Your task to perform on an android device: Go to calendar. Show me events next week Image 0: 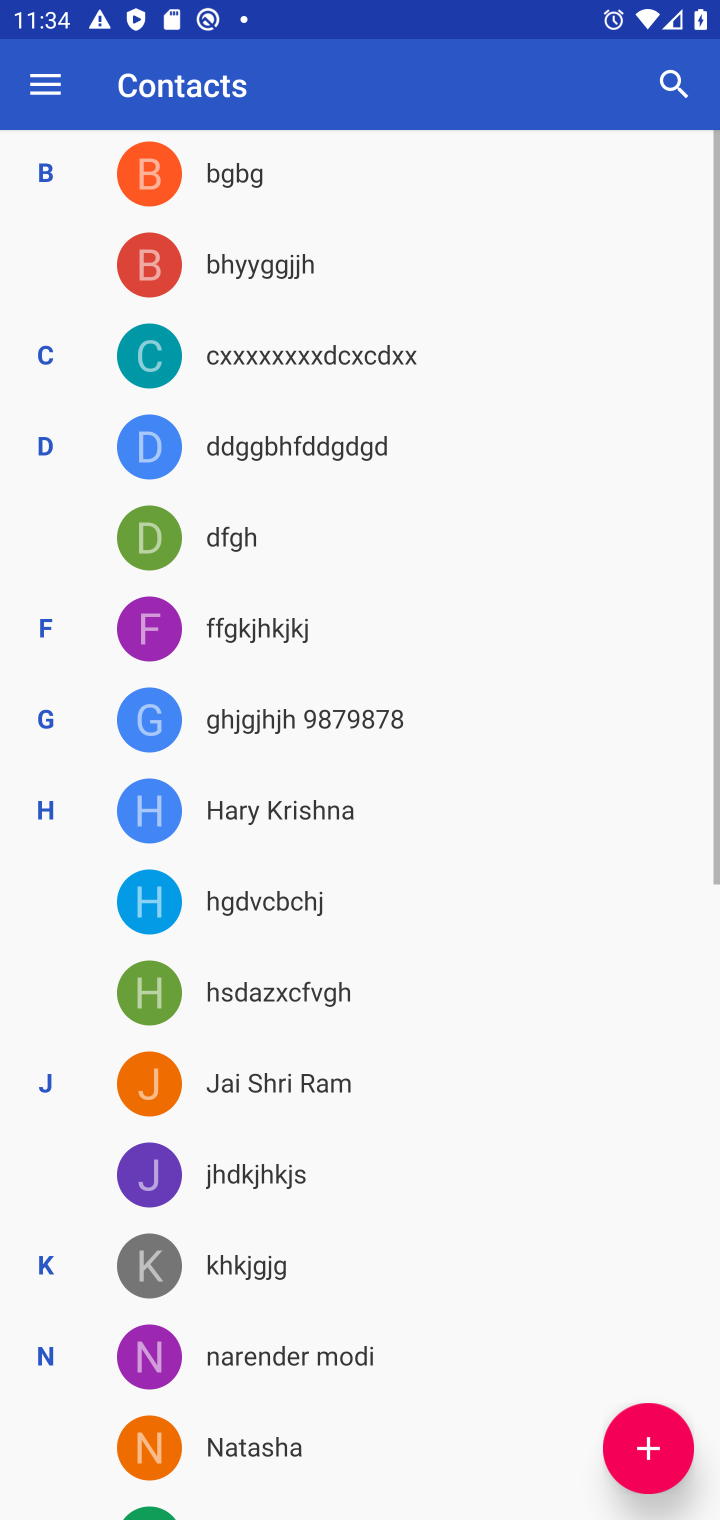
Step 0: press home button
Your task to perform on an android device: Go to calendar. Show me events next week Image 1: 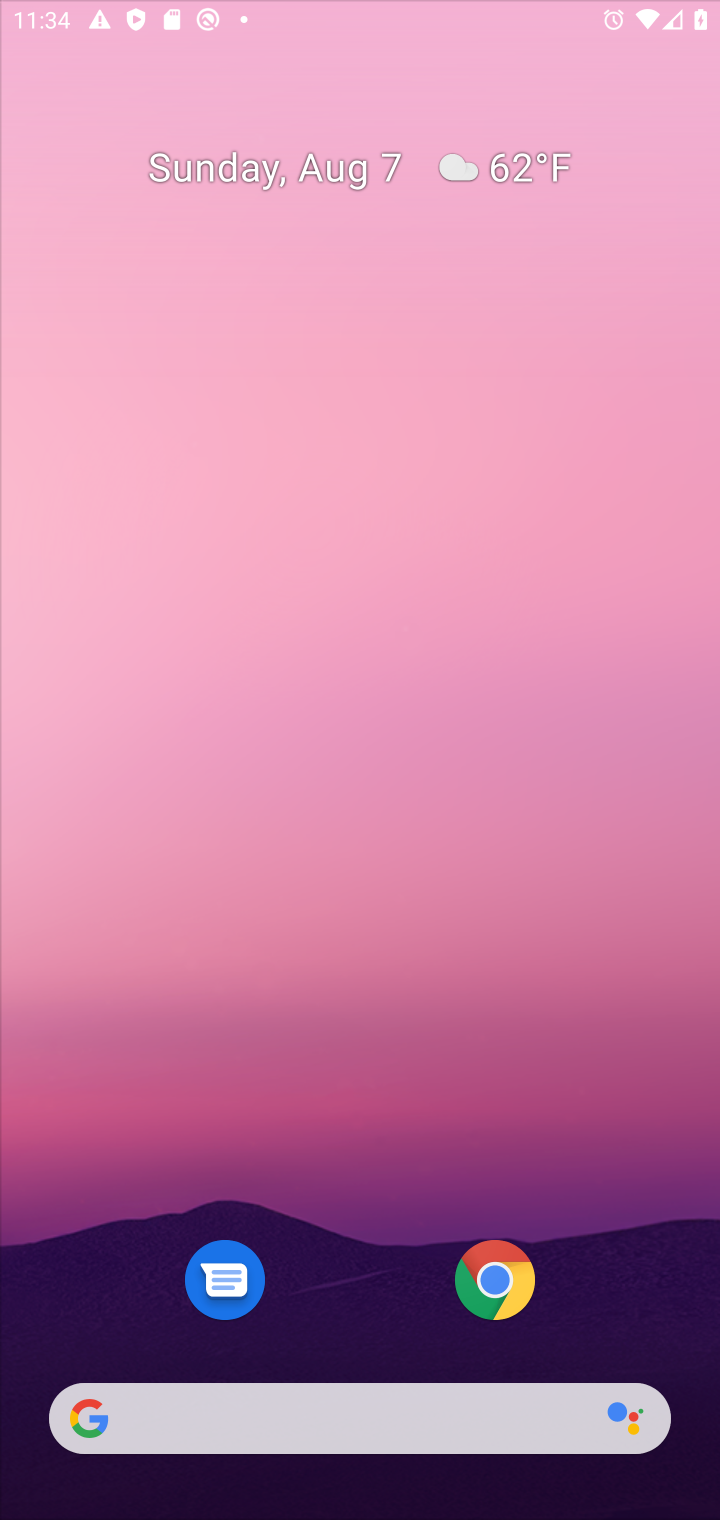
Step 1: press home button
Your task to perform on an android device: Go to calendar. Show me events next week Image 2: 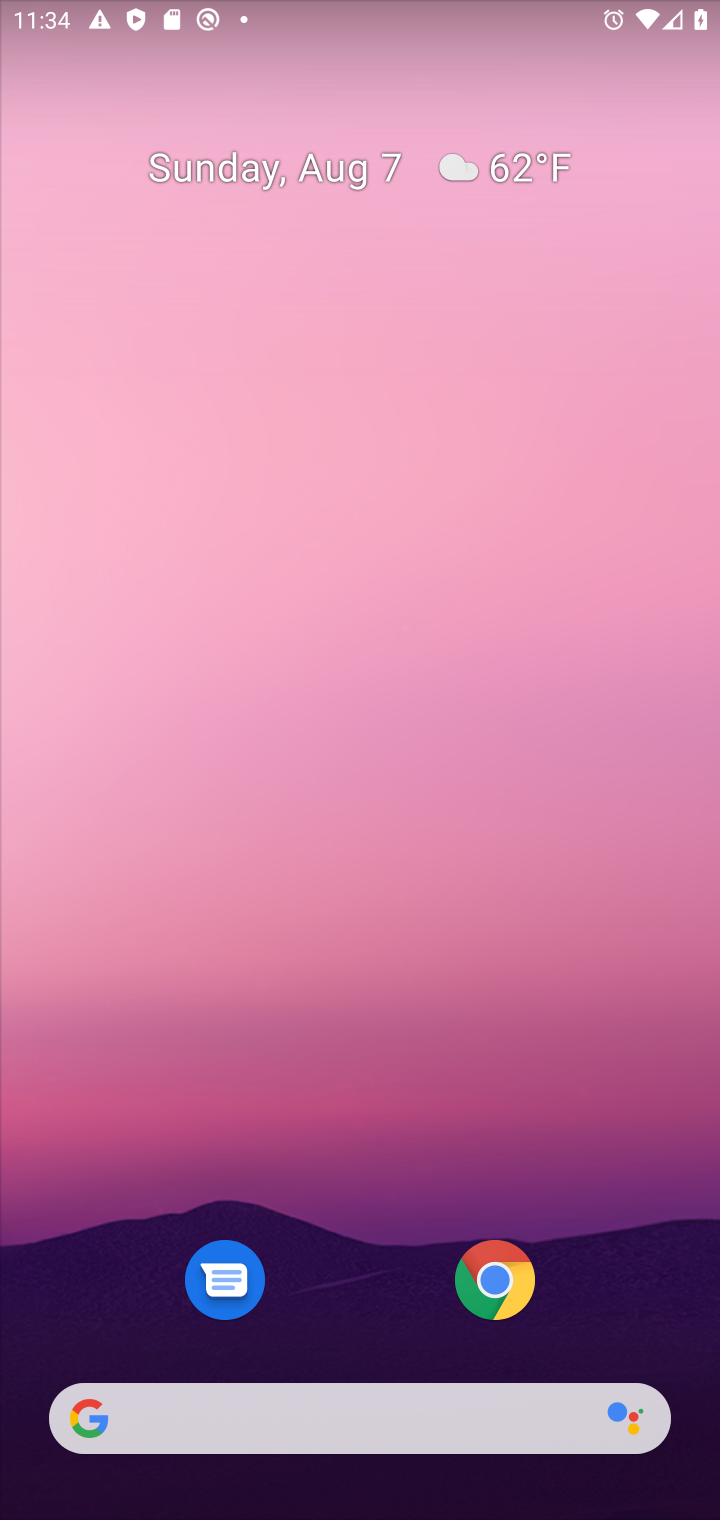
Step 2: drag from (360, 1225) to (362, 203)
Your task to perform on an android device: Go to calendar. Show me events next week Image 3: 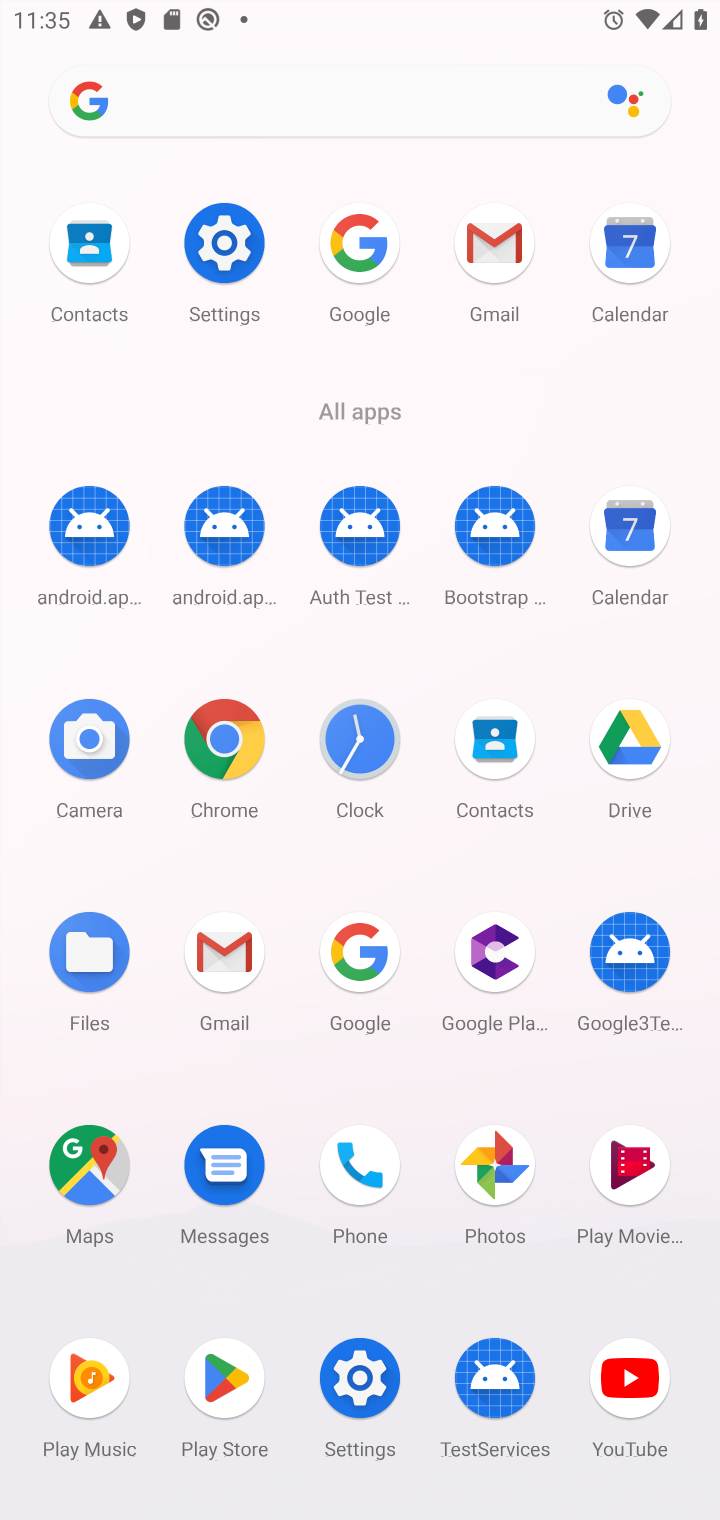
Step 3: click (629, 538)
Your task to perform on an android device: Go to calendar. Show me events next week Image 4: 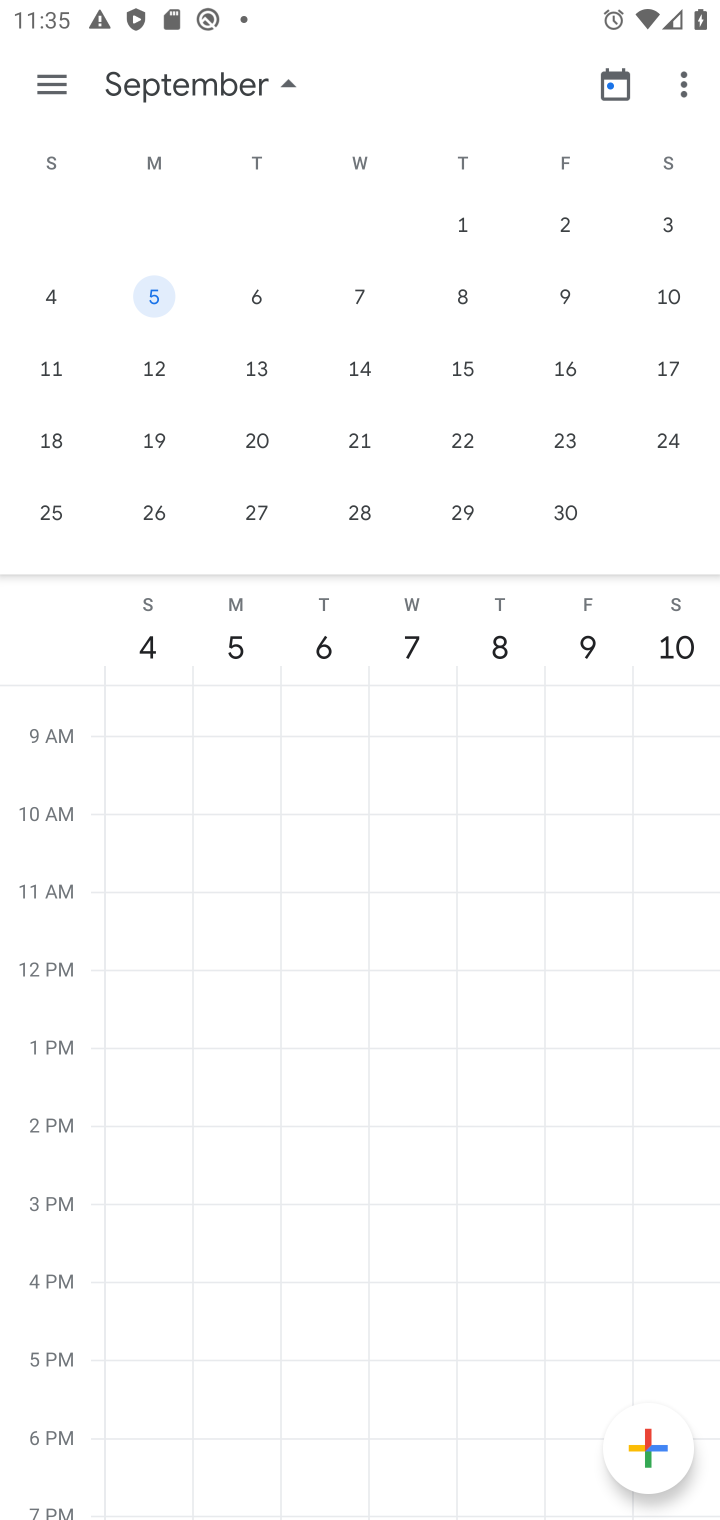
Step 4: drag from (145, 375) to (592, 369)
Your task to perform on an android device: Go to calendar. Show me events next week Image 5: 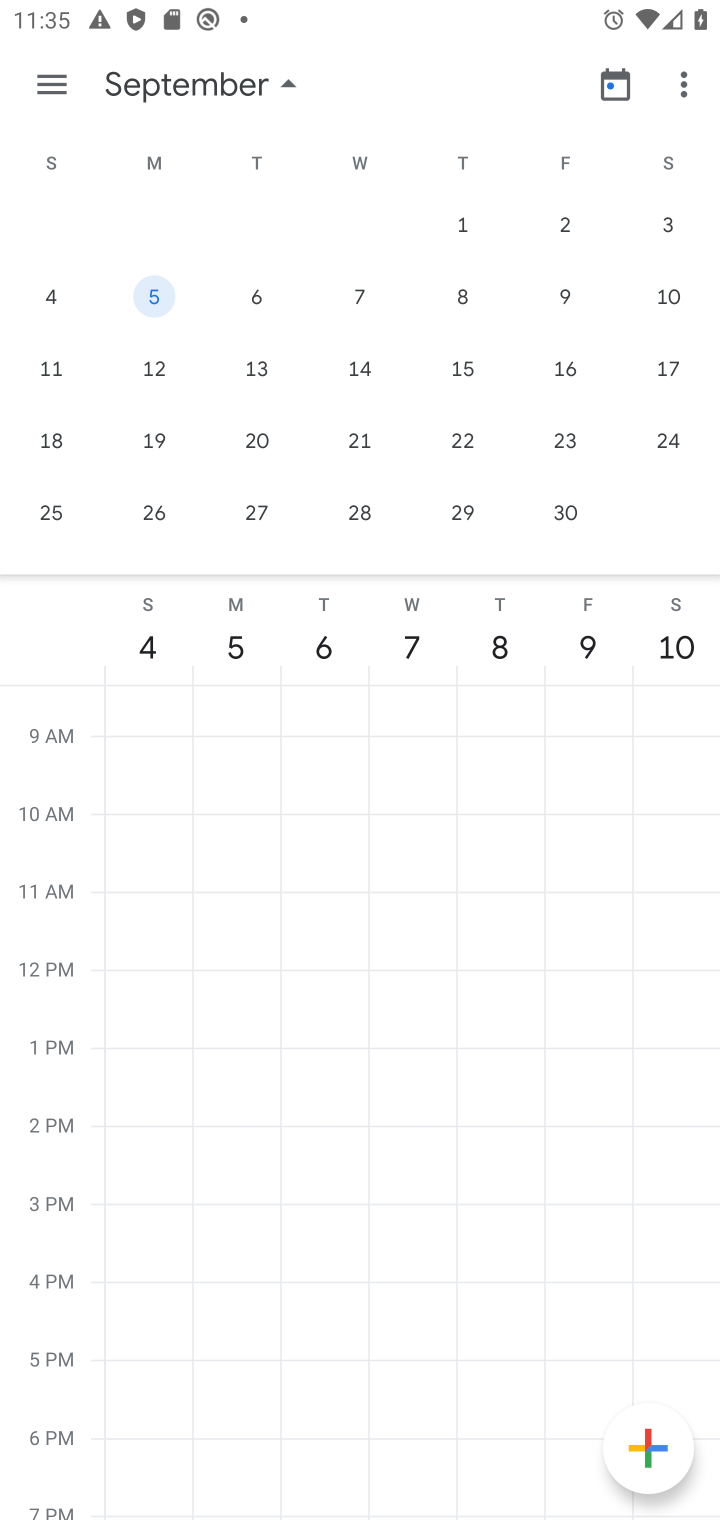
Step 5: drag from (109, 369) to (594, 389)
Your task to perform on an android device: Go to calendar. Show me events next week Image 6: 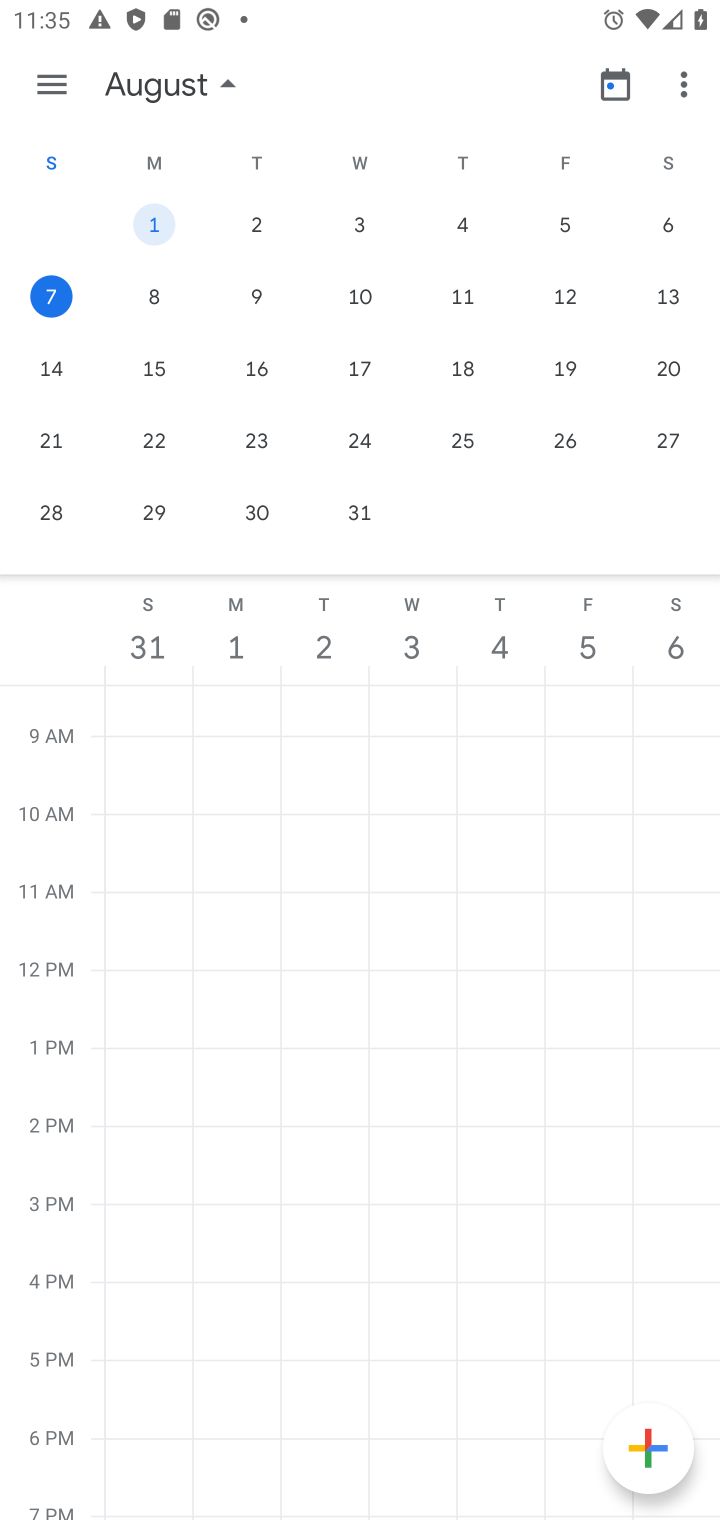
Step 6: click (152, 298)
Your task to perform on an android device: Go to calendar. Show me events next week Image 7: 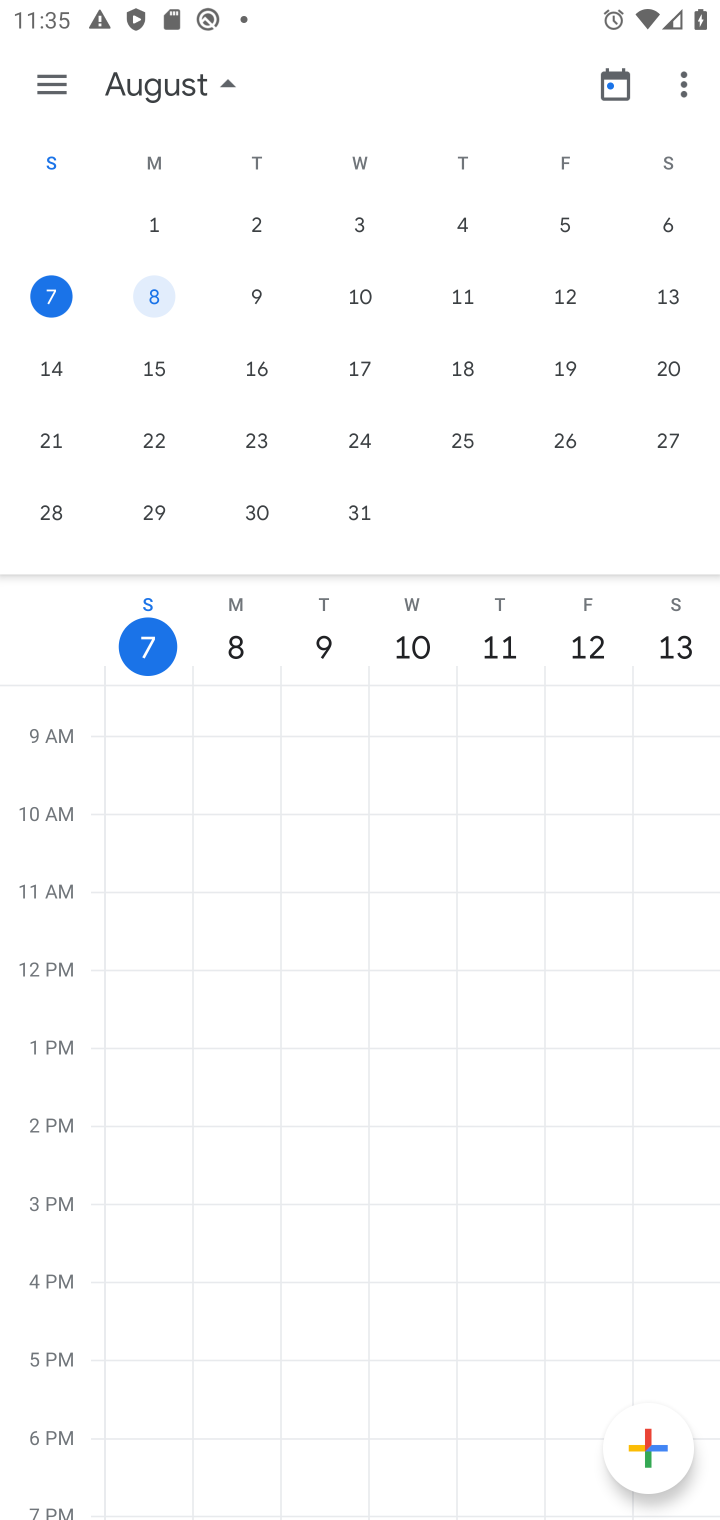
Step 7: click (58, 92)
Your task to perform on an android device: Go to calendar. Show me events next week Image 8: 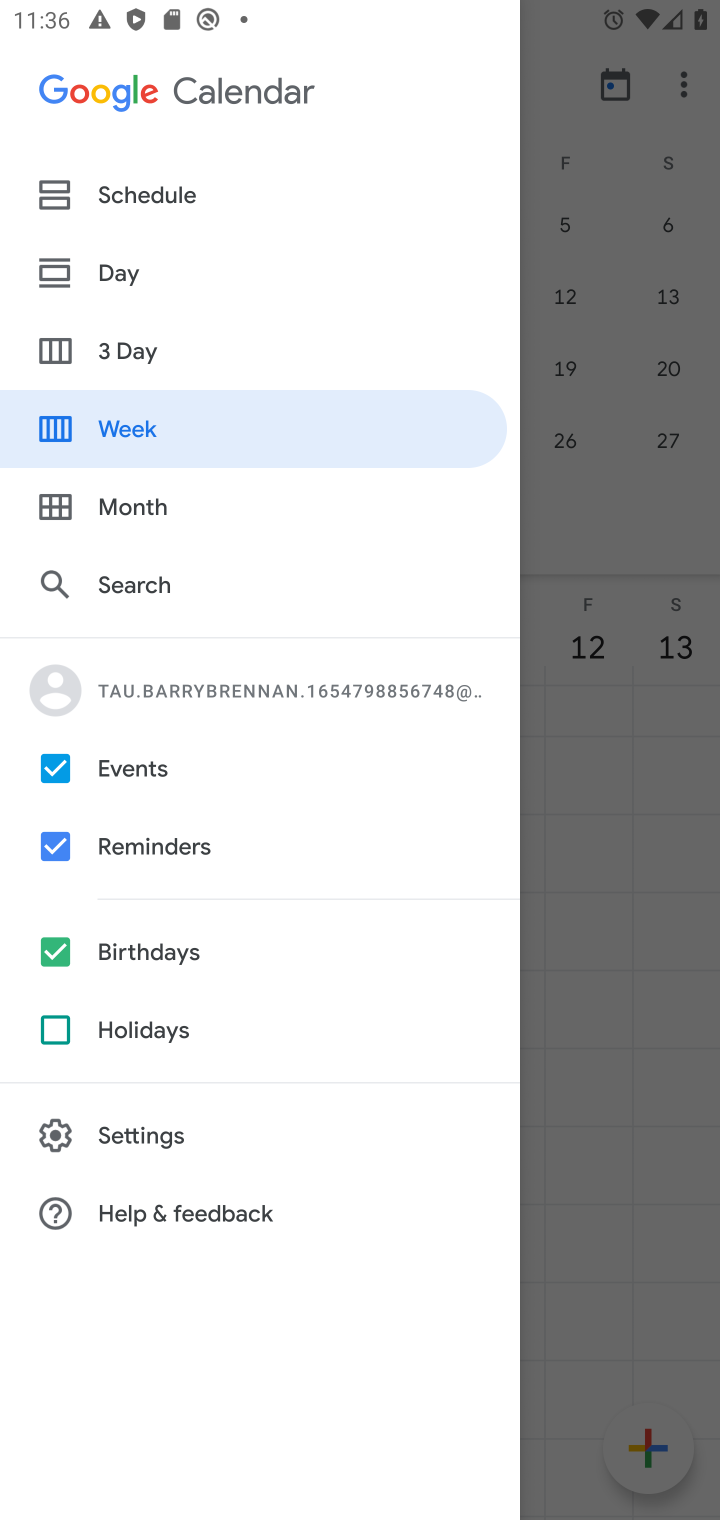
Step 8: click (182, 431)
Your task to perform on an android device: Go to calendar. Show me events next week Image 9: 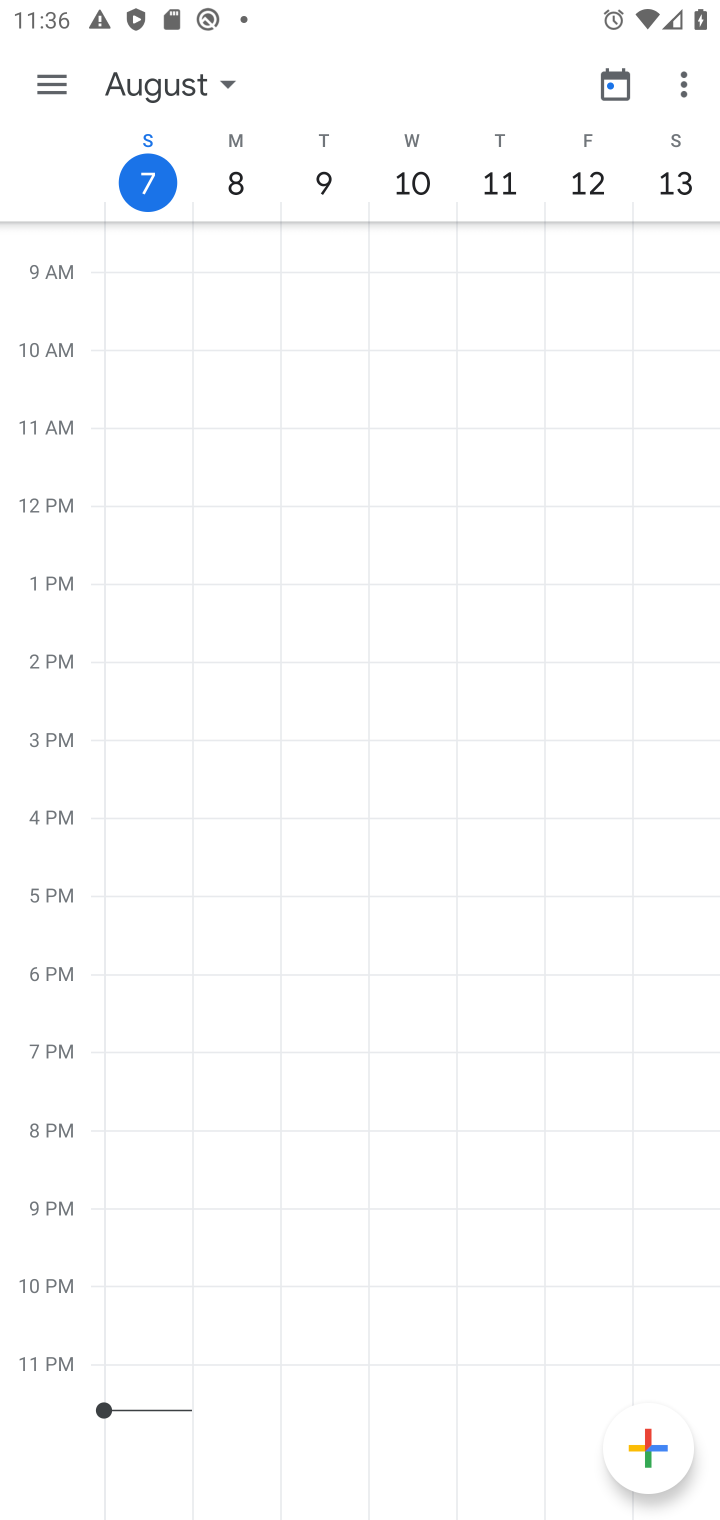
Step 9: task complete